Your task to perform on an android device: turn off data saver in the chrome app Image 0: 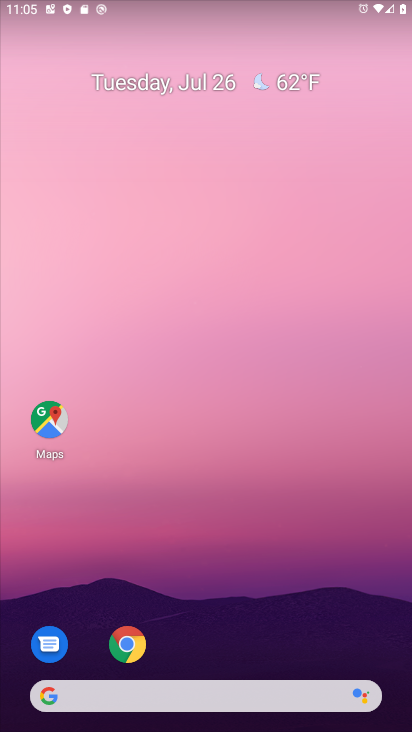
Step 0: click (136, 647)
Your task to perform on an android device: turn off data saver in the chrome app Image 1: 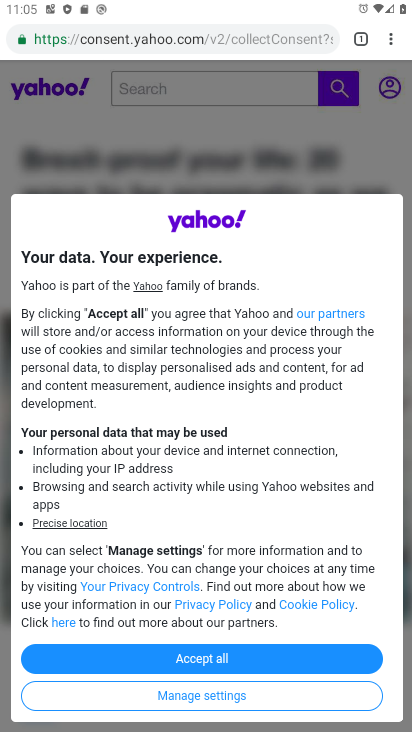
Step 1: click (390, 42)
Your task to perform on an android device: turn off data saver in the chrome app Image 2: 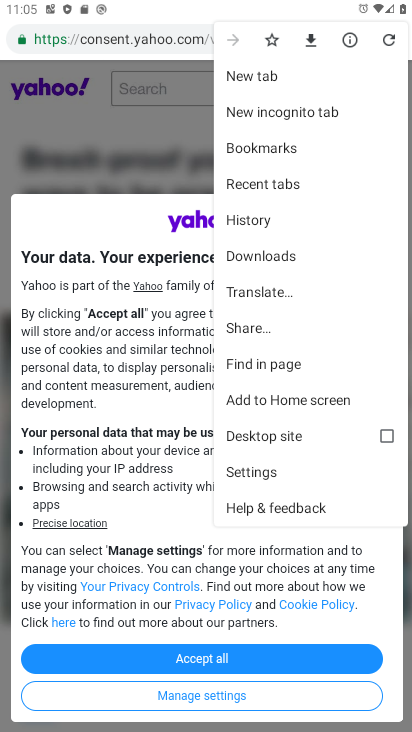
Step 2: click (265, 469)
Your task to perform on an android device: turn off data saver in the chrome app Image 3: 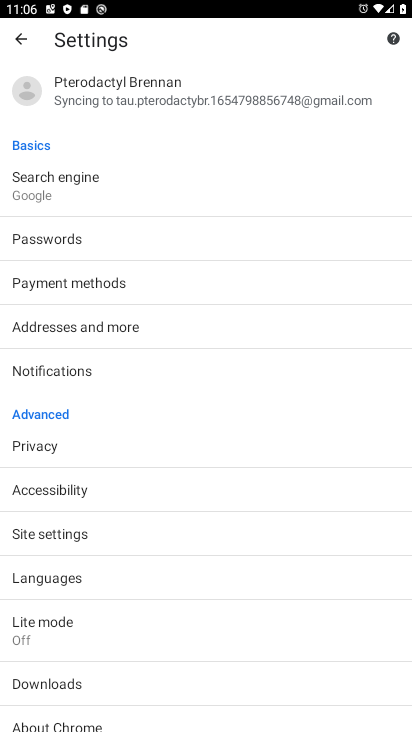
Step 3: click (73, 629)
Your task to perform on an android device: turn off data saver in the chrome app Image 4: 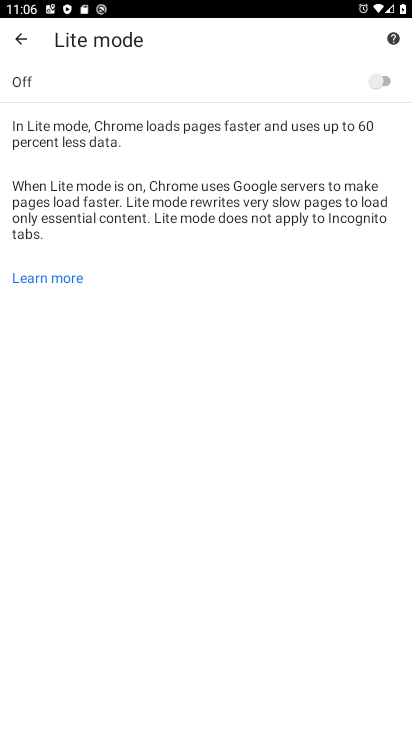
Step 4: task complete